Your task to perform on an android device: turn pop-ups off in chrome Image 0: 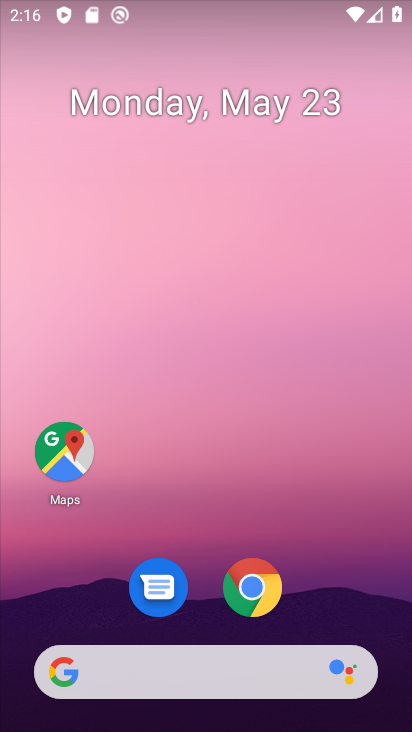
Step 0: click (251, 593)
Your task to perform on an android device: turn pop-ups off in chrome Image 1: 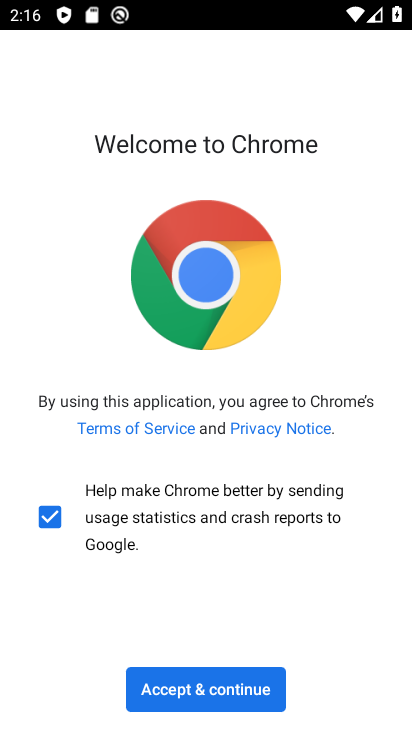
Step 1: click (207, 683)
Your task to perform on an android device: turn pop-ups off in chrome Image 2: 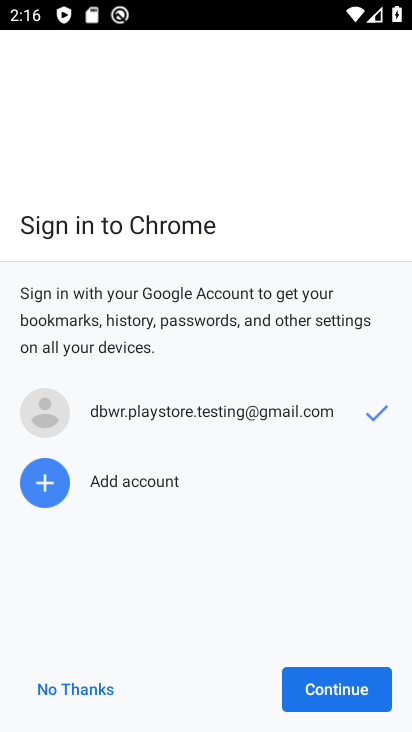
Step 2: click (346, 687)
Your task to perform on an android device: turn pop-ups off in chrome Image 3: 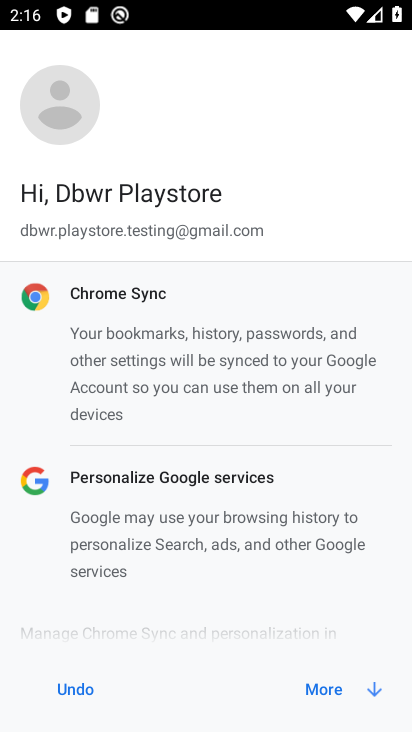
Step 3: click (330, 685)
Your task to perform on an android device: turn pop-ups off in chrome Image 4: 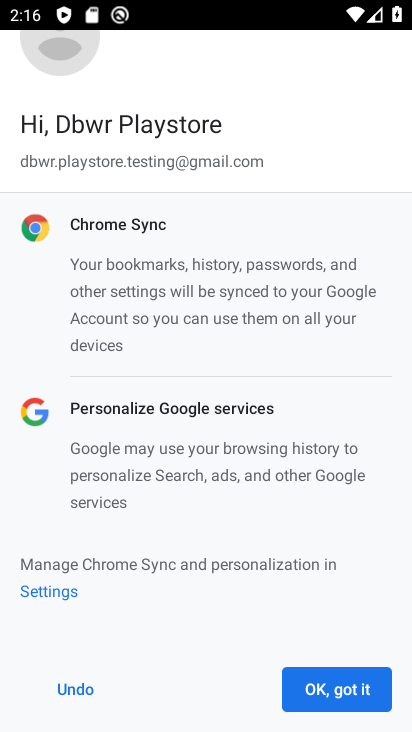
Step 4: click (367, 693)
Your task to perform on an android device: turn pop-ups off in chrome Image 5: 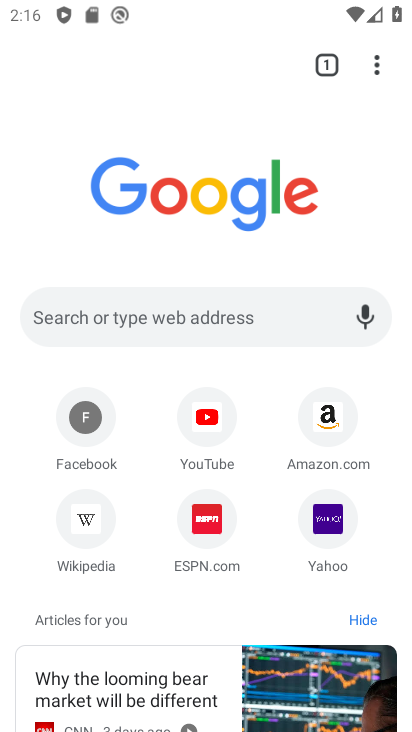
Step 5: click (375, 59)
Your task to perform on an android device: turn pop-ups off in chrome Image 6: 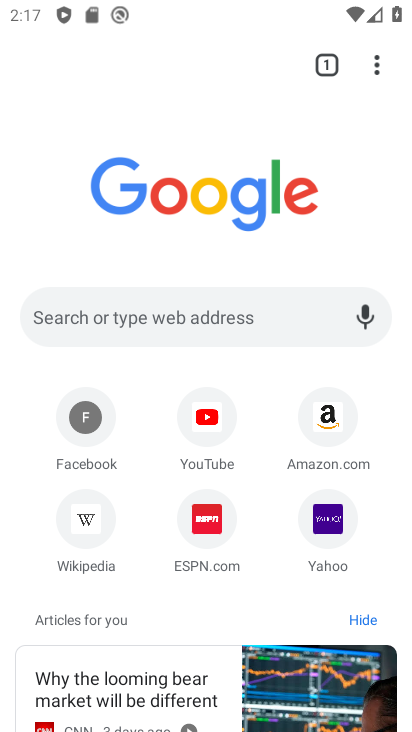
Step 6: click (377, 66)
Your task to perform on an android device: turn pop-ups off in chrome Image 7: 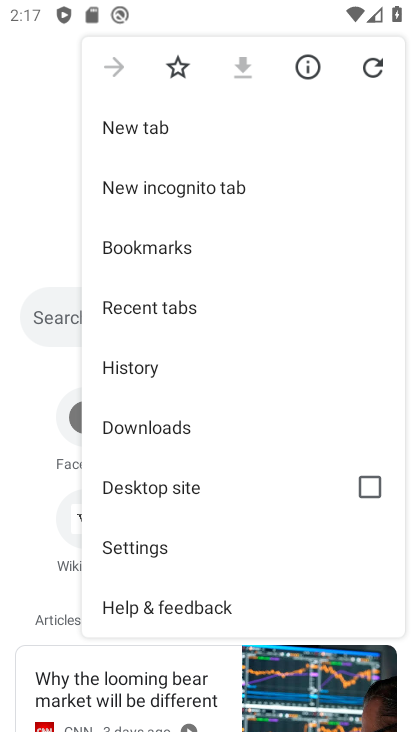
Step 7: click (132, 547)
Your task to perform on an android device: turn pop-ups off in chrome Image 8: 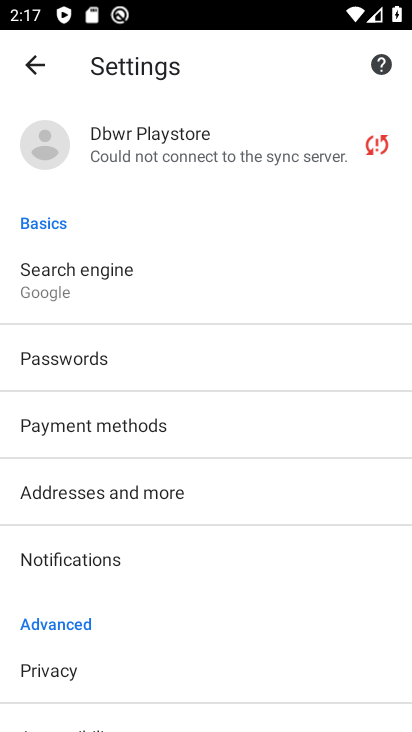
Step 8: drag from (99, 609) to (190, 262)
Your task to perform on an android device: turn pop-ups off in chrome Image 9: 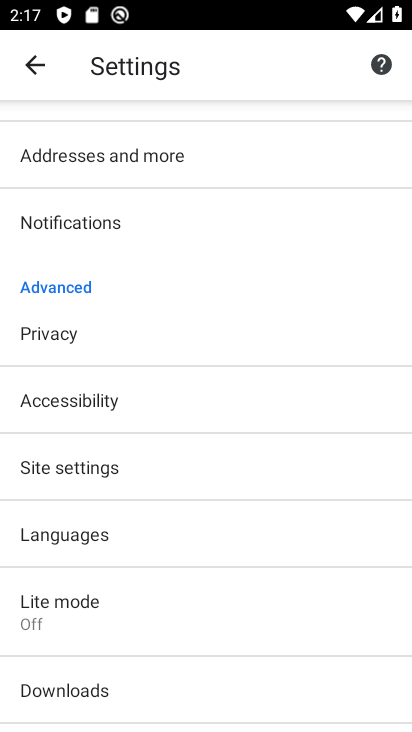
Step 9: click (90, 470)
Your task to perform on an android device: turn pop-ups off in chrome Image 10: 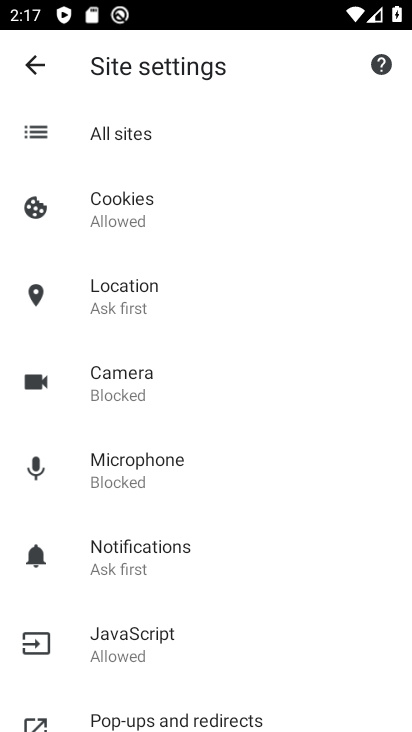
Step 10: click (153, 722)
Your task to perform on an android device: turn pop-ups off in chrome Image 11: 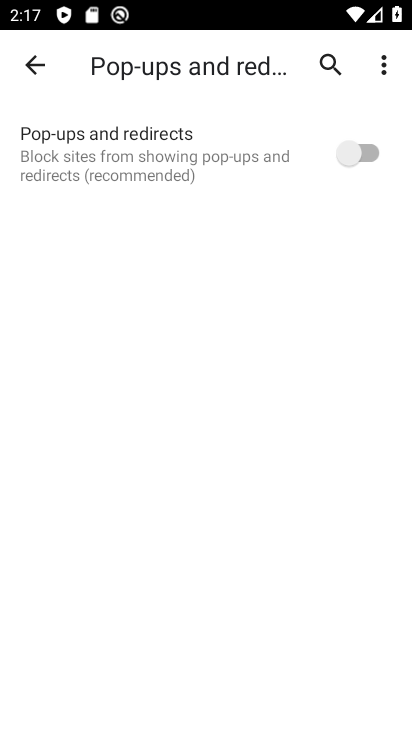
Step 11: task complete